Your task to perform on an android device: change the clock display to show seconds Image 0: 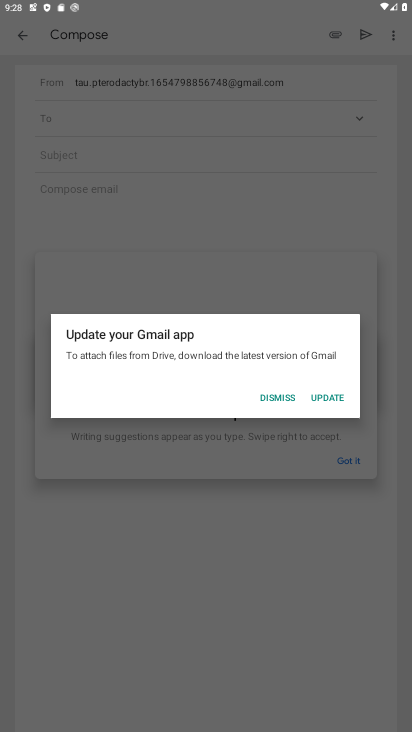
Step 0: press home button
Your task to perform on an android device: change the clock display to show seconds Image 1: 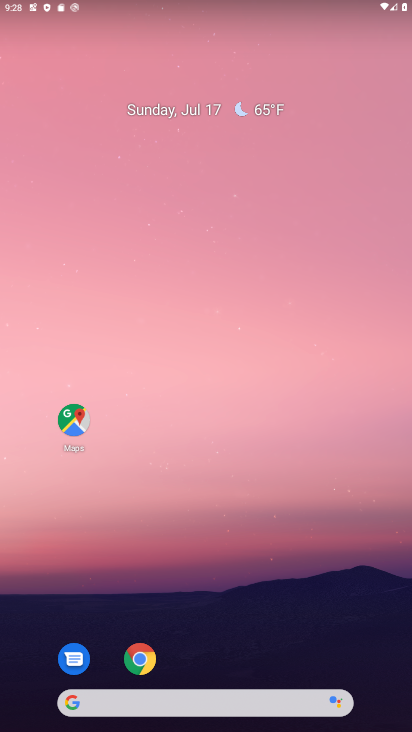
Step 1: drag from (241, 659) to (301, 73)
Your task to perform on an android device: change the clock display to show seconds Image 2: 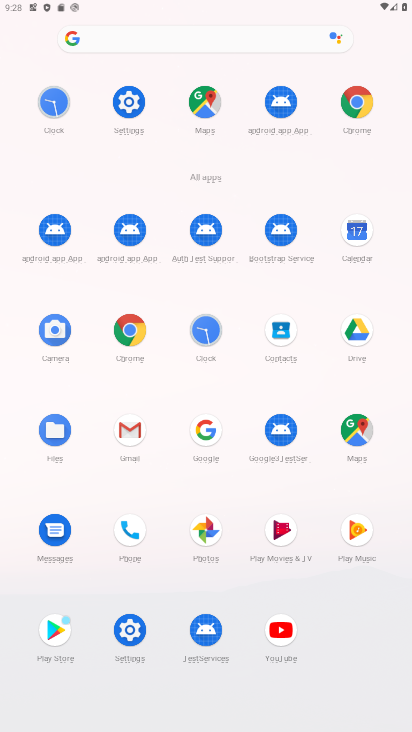
Step 2: click (48, 115)
Your task to perform on an android device: change the clock display to show seconds Image 3: 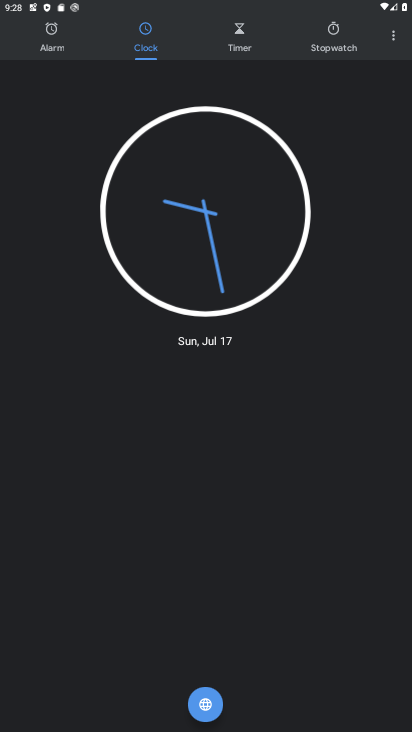
Step 3: click (400, 42)
Your task to perform on an android device: change the clock display to show seconds Image 4: 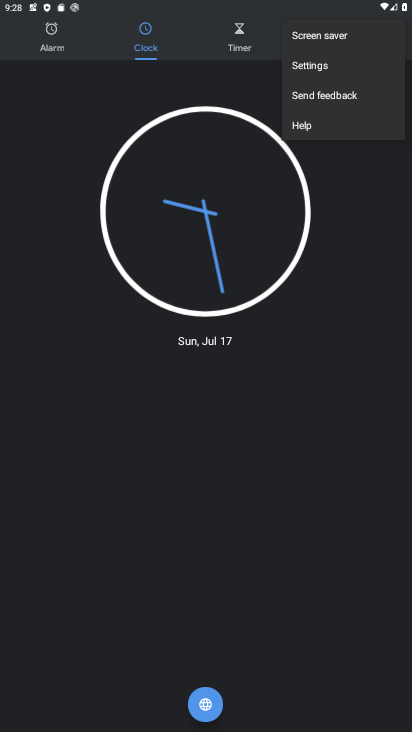
Step 4: click (357, 63)
Your task to perform on an android device: change the clock display to show seconds Image 5: 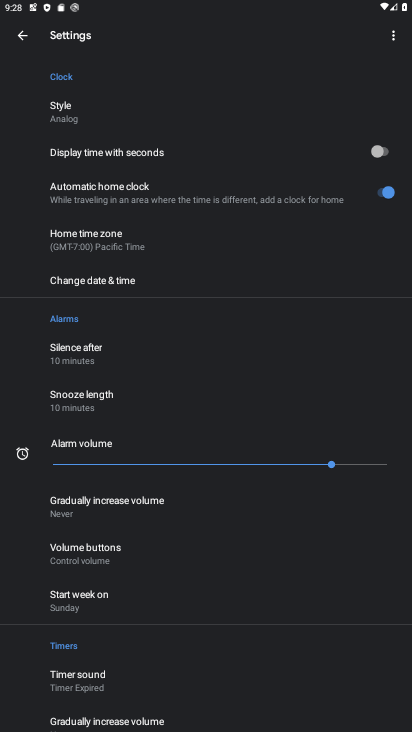
Step 5: click (381, 158)
Your task to perform on an android device: change the clock display to show seconds Image 6: 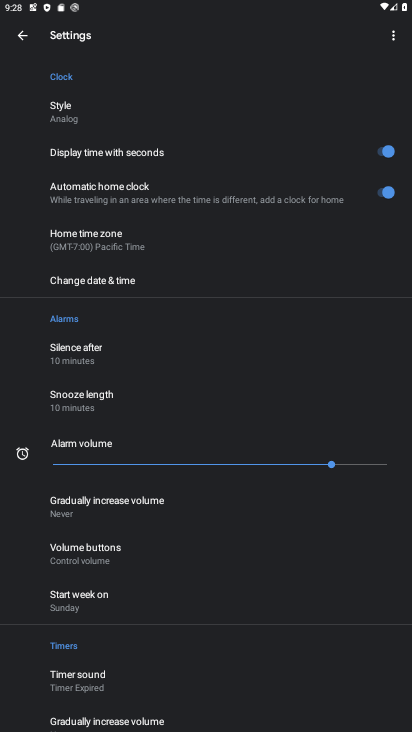
Step 6: task complete